Your task to perform on an android device: turn off airplane mode Image 0: 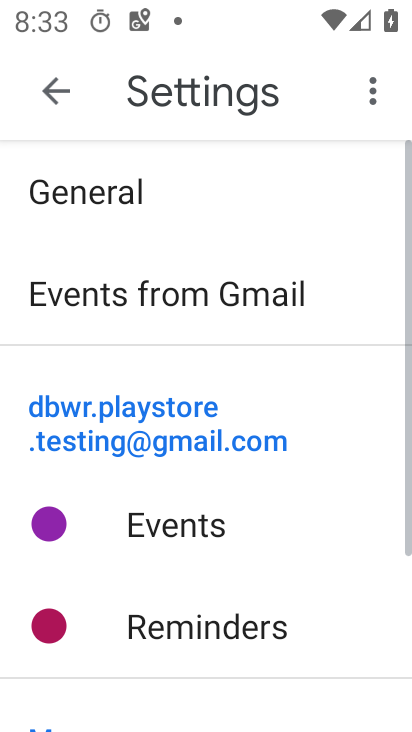
Step 0: drag from (211, 573) to (232, 357)
Your task to perform on an android device: turn off airplane mode Image 1: 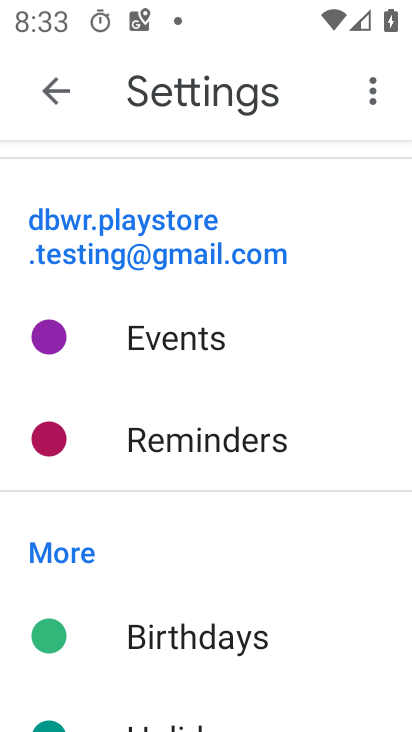
Step 1: task complete